Your task to perform on an android device: Go to eBay Image 0: 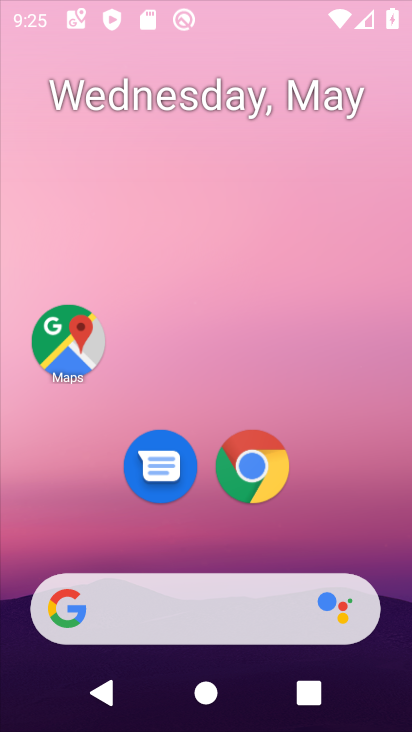
Step 0: press back button
Your task to perform on an android device: Go to eBay Image 1: 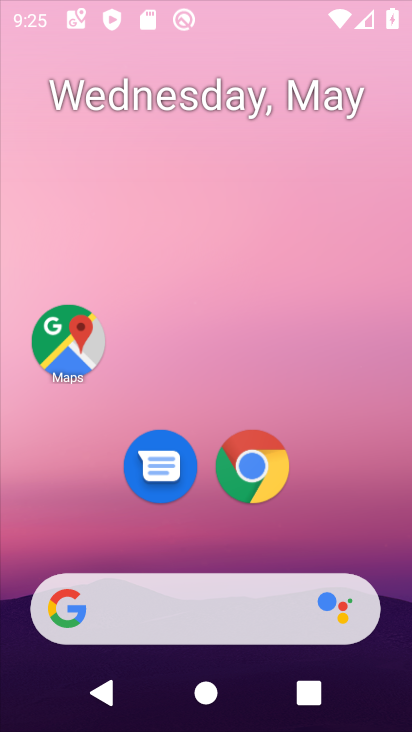
Step 1: drag from (409, 511) to (242, 42)
Your task to perform on an android device: Go to eBay Image 2: 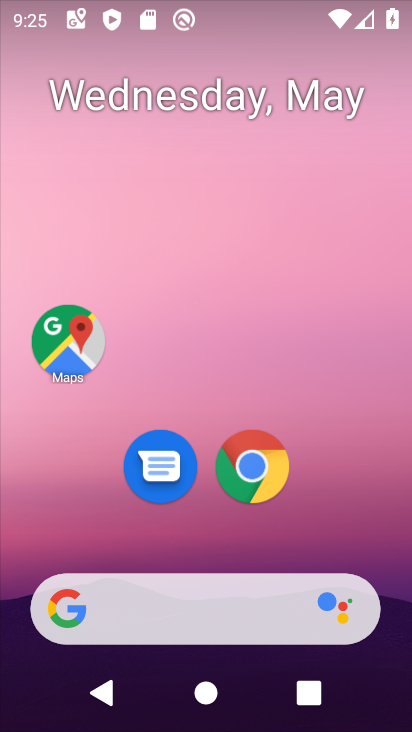
Step 2: drag from (274, 692) to (228, 71)
Your task to perform on an android device: Go to eBay Image 3: 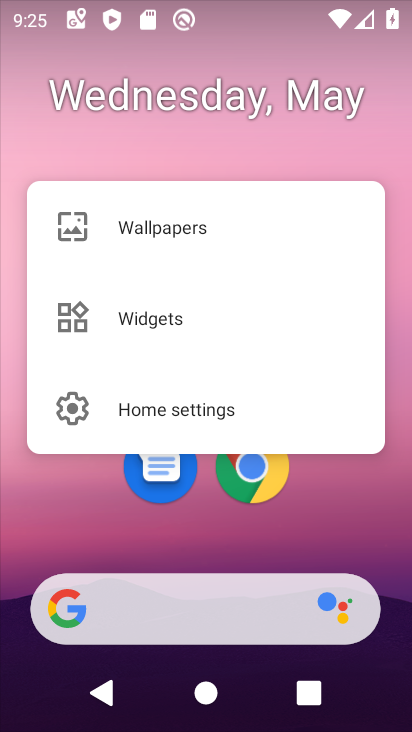
Step 3: drag from (347, 506) to (177, 5)
Your task to perform on an android device: Go to eBay Image 4: 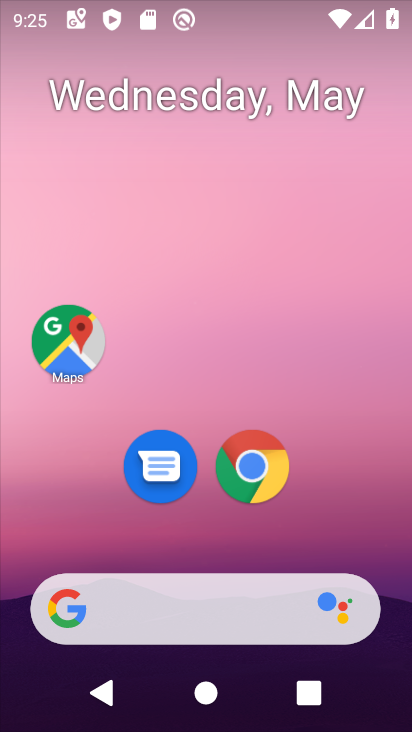
Step 4: drag from (267, 407) to (223, 100)
Your task to perform on an android device: Go to eBay Image 5: 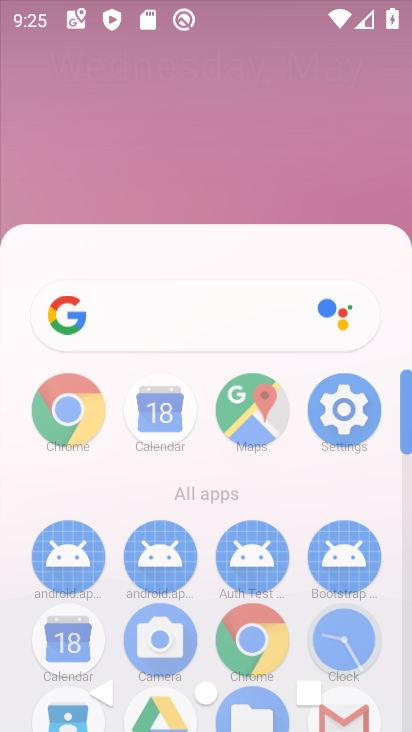
Step 5: drag from (220, 89) to (125, 68)
Your task to perform on an android device: Go to eBay Image 6: 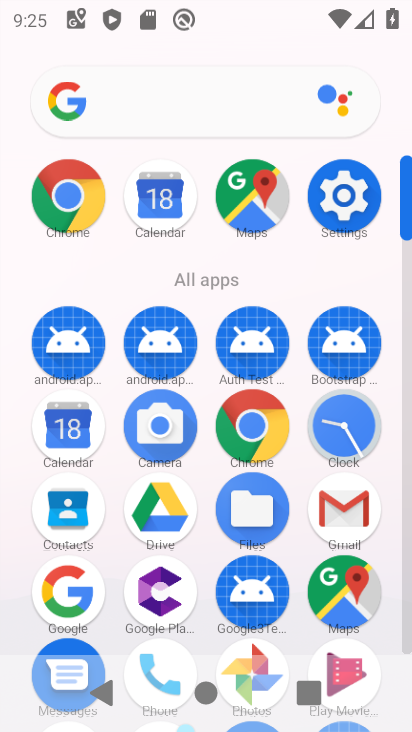
Step 6: drag from (287, 415) to (193, 4)
Your task to perform on an android device: Go to eBay Image 7: 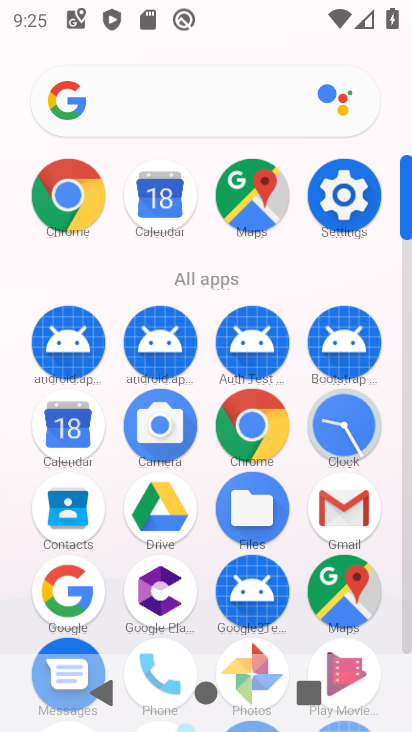
Step 7: click (256, 420)
Your task to perform on an android device: Go to eBay Image 8: 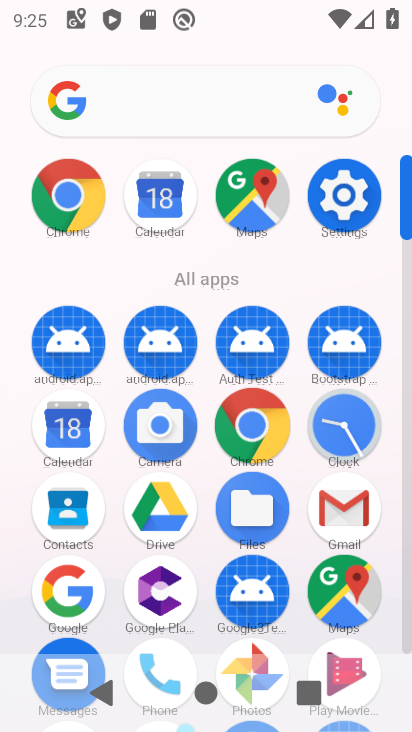
Step 8: click (256, 421)
Your task to perform on an android device: Go to eBay Image 9: 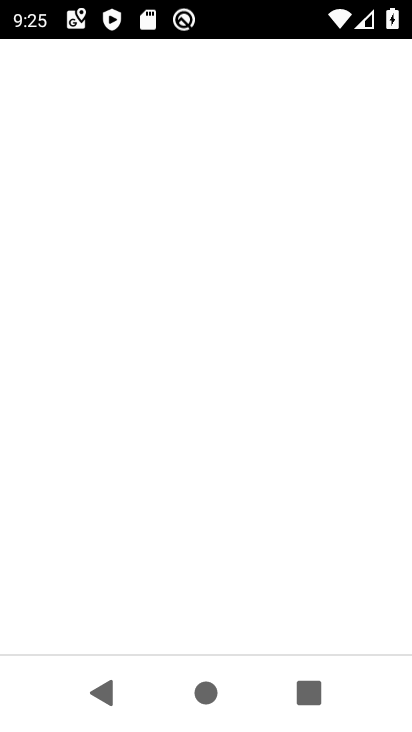
Step 9: click (257, 423)
Your task to perform on an android device: Go to eBay Image 10: 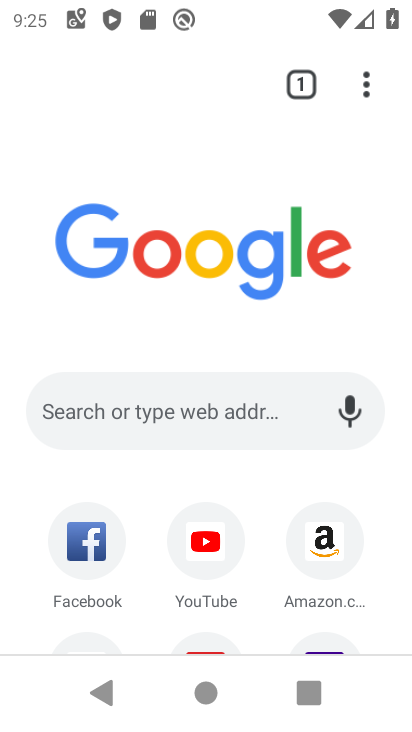
Step 10: click (72, 416)
Your task to perform on an android device: Go to eBay Image 11: 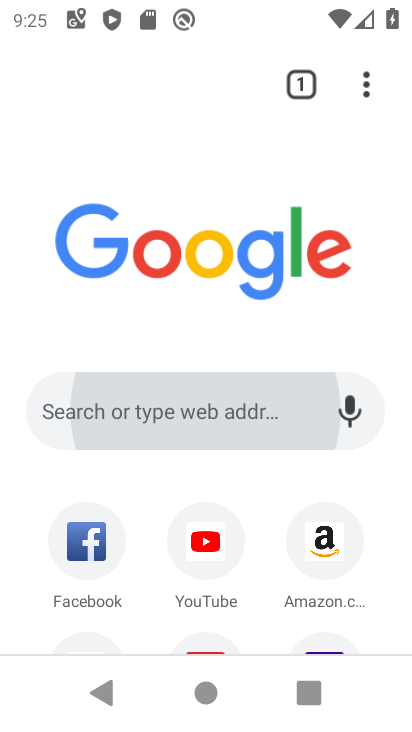
Step 11: click (76, 413)
Your task to perform on an android device: Go to eBay Image 12: 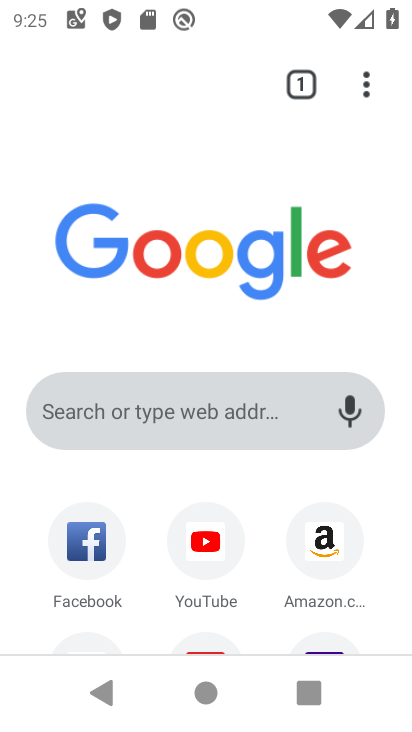
Step 12: click (76, 412)
Your task to perform on an android device: Go to eBay Image 13: 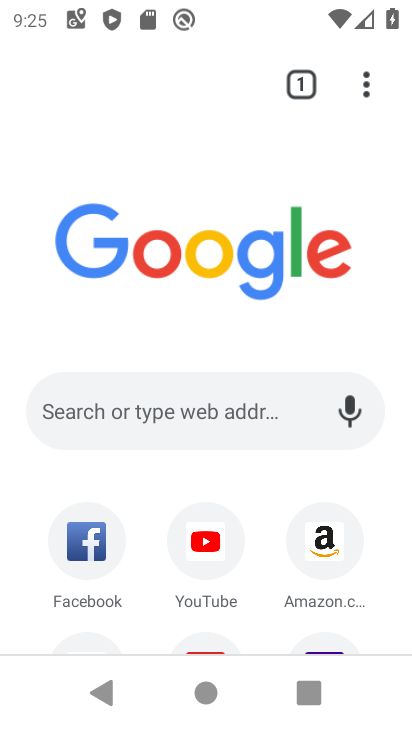
Step 13: click (77, 408)
Your task to perform on an android device: Go to eBay Image 14: 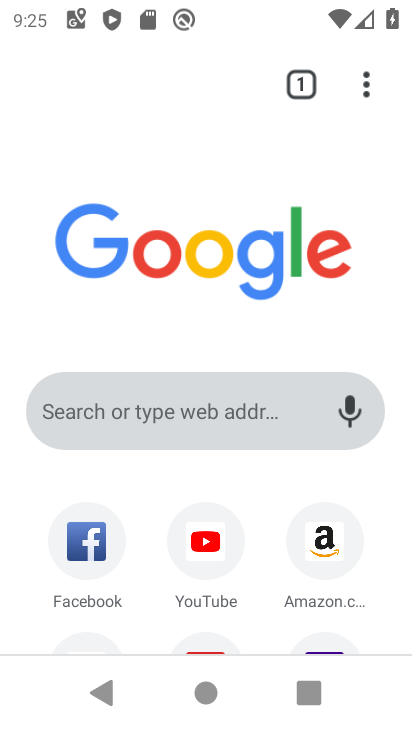
Step 14: click (77, 408)
Your task to perform on an android device: Go to eBay Image 15: 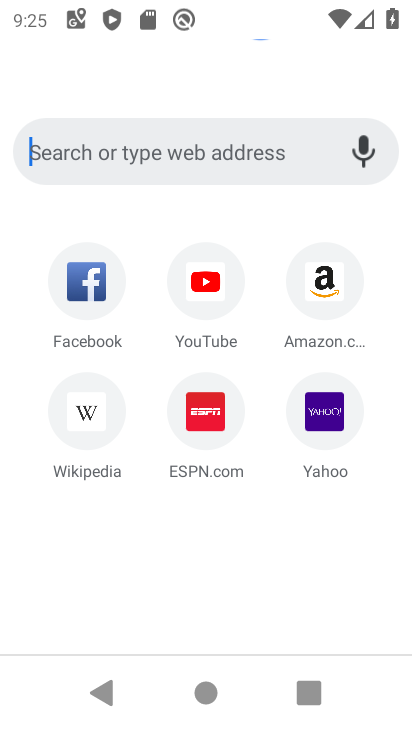
Step 15: click (76, 408)
Your task to perform on an android device: Go to eBay Image 16: 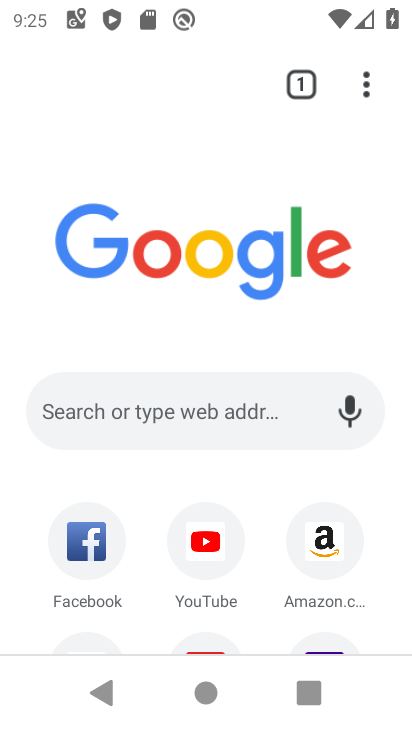
Step 16: click (75, 412)
Your task to perform on an android device: Go to eBay Image 17: 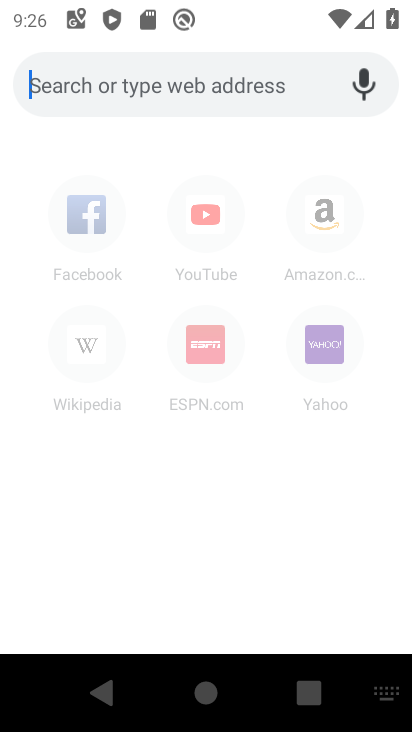
Step 17: type "ebay.com"
Your task to perform on an android device: Go to eBay Image 18: 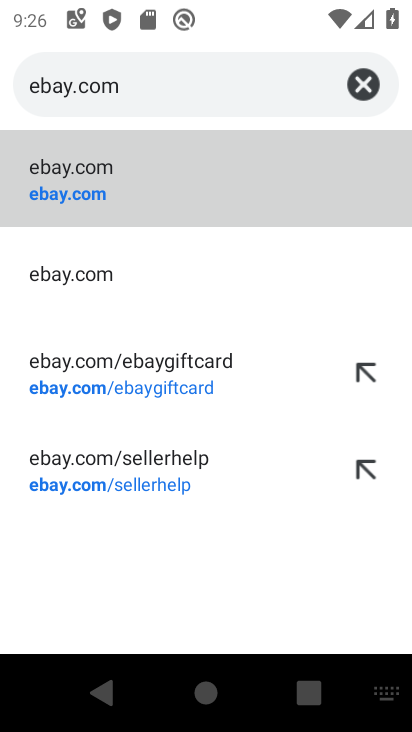
Step 18: click (70, 182)
Your task to perform on an android device: Go to eBay Image 19: 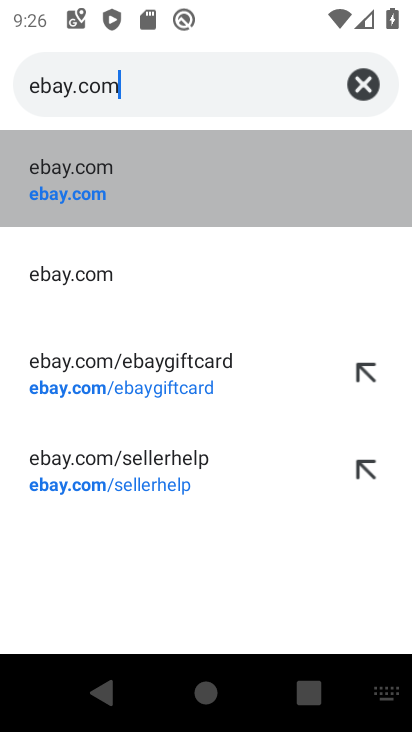
Step 19: click (69, 184)
Your task to perform on an android device: Go to eBay Image 20: 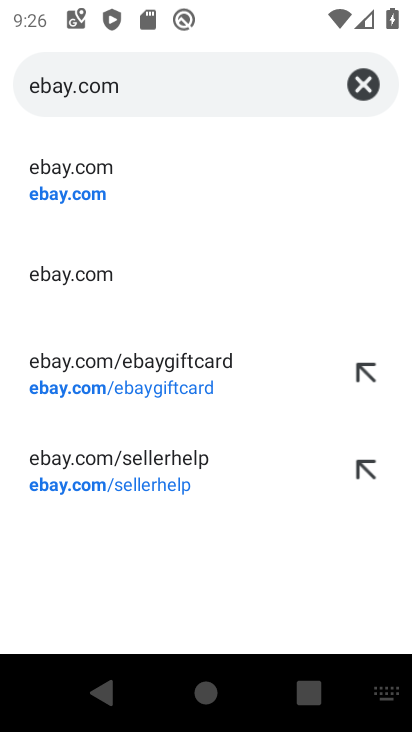
Step 20: click (69, 184)
Your task to perform on an android device: Go to eBay Image 21: 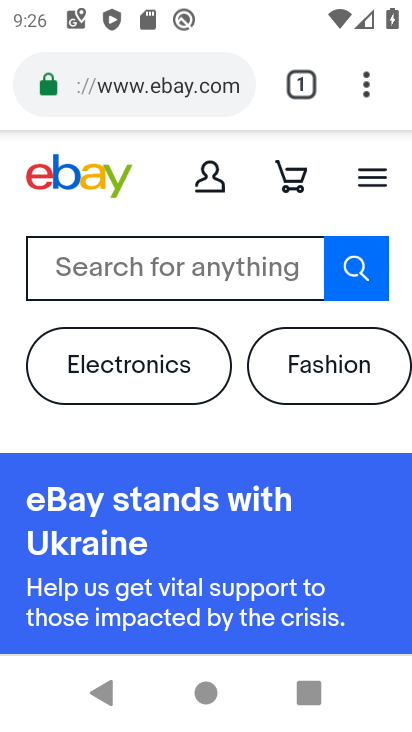
Step 21: task complete